Your task to perform on an android device: see tabs open on other devices in the chrome app Image 0: 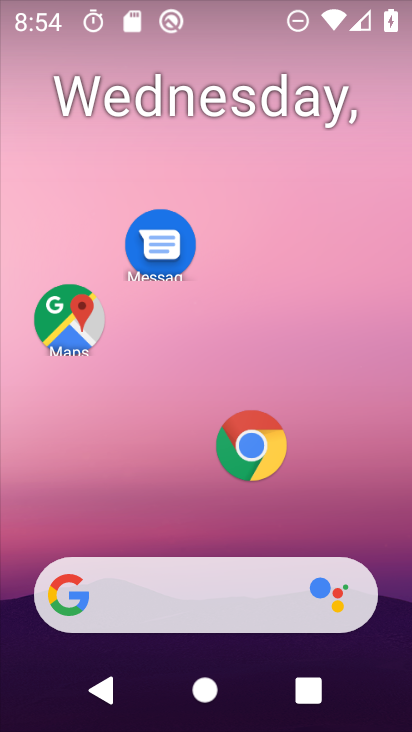
Step 0: click (250, 445)
Your task to perform on an android device: see tabs open on other devices in the chrome app Image 1: 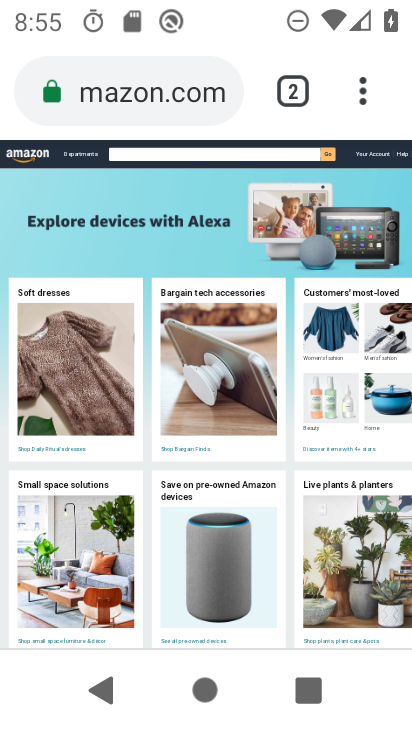
Step 1: click (359, 89)
Your task to perform on an android device: see tabs open on other devices in the chrome app Image 2: 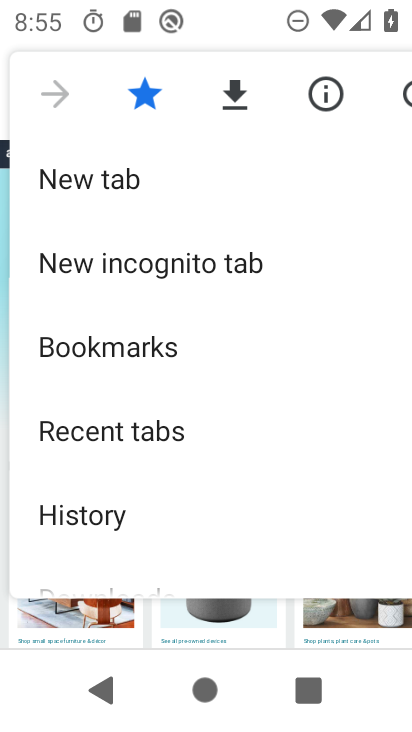
Step 2: drag from (185, 517) to (181, 95)
Your task to perform on an android device: see tabs open on other devices in the chrome app Image 3: 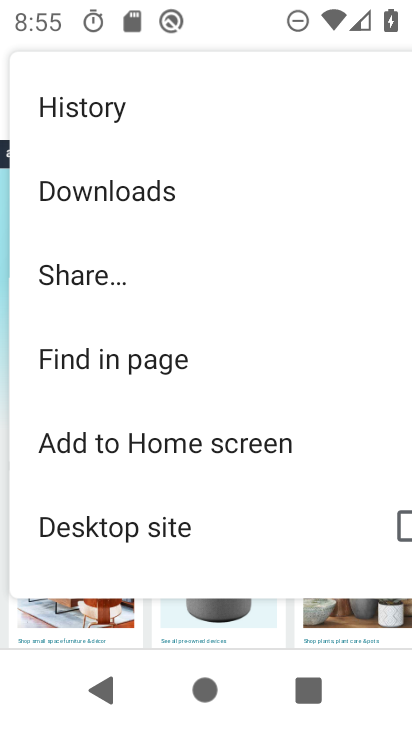
Step 3: drag from (185, 170) to (193, 378)
Your task to perform on an android device: see tabs open on other devices in the chrome app Image 4: 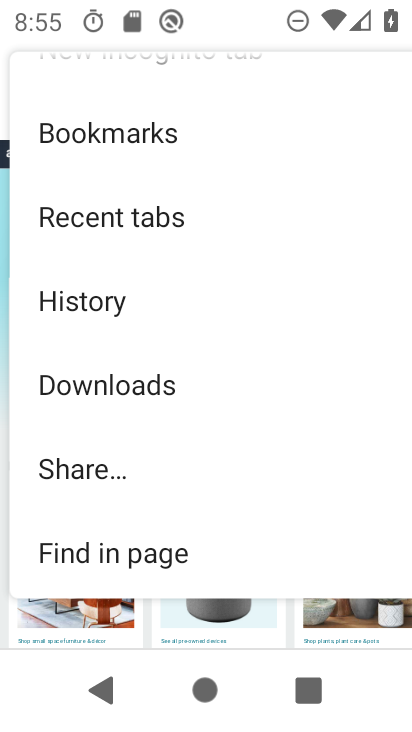
Step 4: click (190, 210)
Your task to perform on an android device: see tabs open on other devices in the chrome app Image 5: 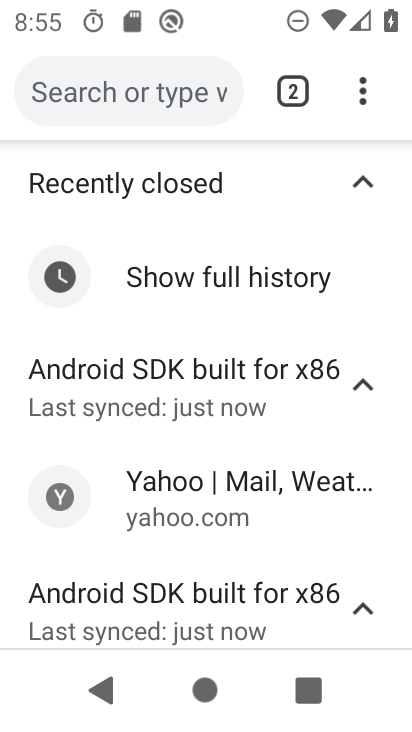
Step 5: task complete